Your task to perform on an android device: find snoozed emails in the gmail app Image 0: 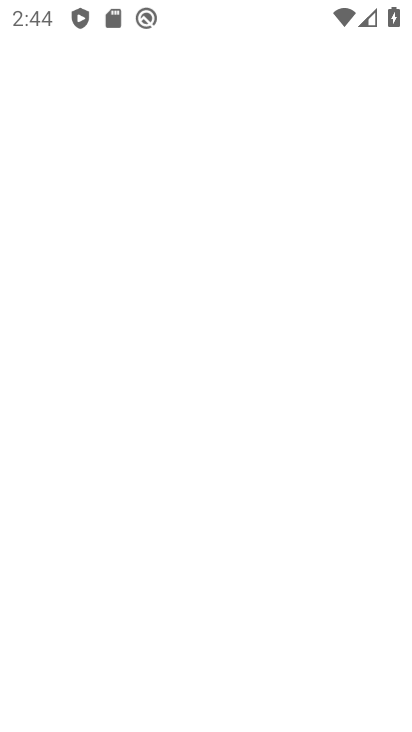
Step 0: press back button
Your task to perform on an android device: find snoozed emails in the gmail app Image 1: 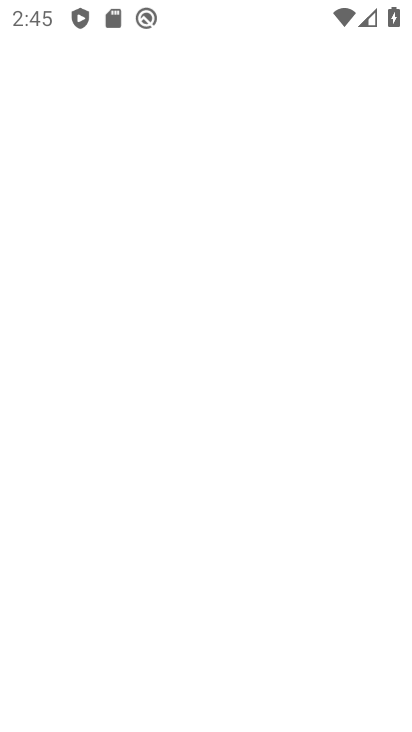
Step 1: press home button
Your task to perform on an android device: find snoozed emails in the gmail app Image 2: 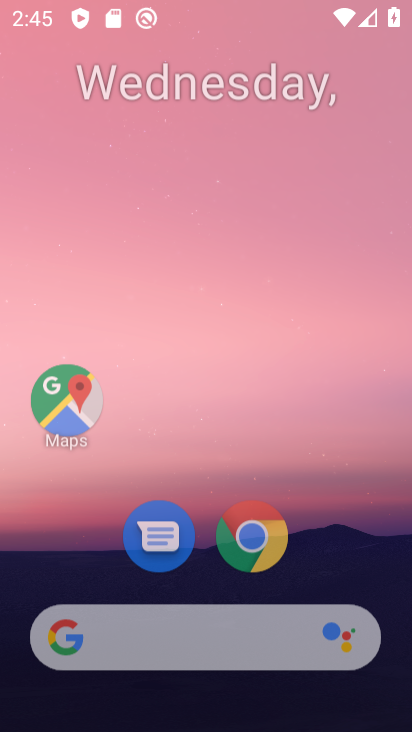
Step 2: press back button
Your task to perform on an android device: find snoozed emails in the gmail app Image 3: 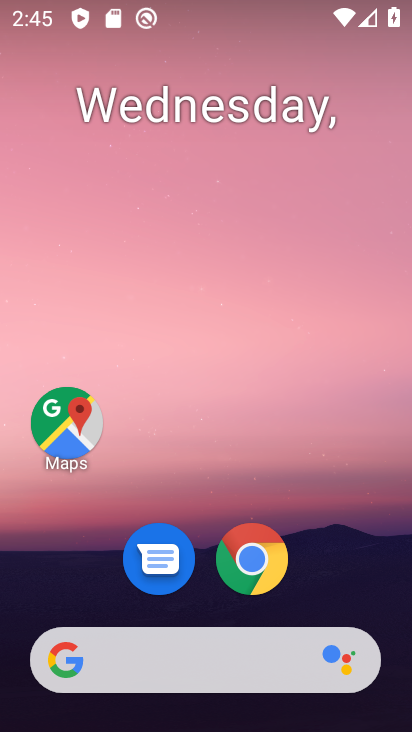
Step 3: drag from (61, 507) to (168, 57)
Your task to perform on an android device: find snoozed emails in the gmail app Image 4: 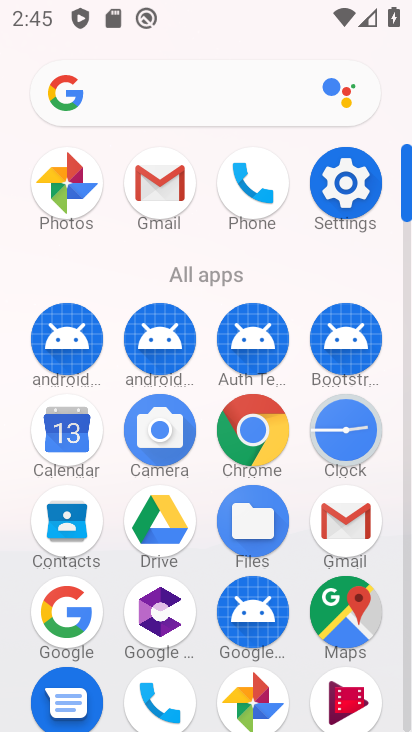
Step 4: click (164, 180)
Your task to perform on an android device: find snoozed emails in the gmail app Image 5: 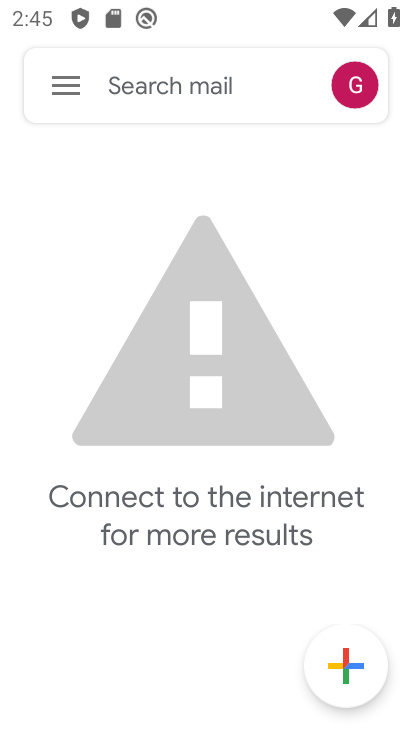
Step 5: drag from (167, 169) to (163, 731)
Your task to perform on an android device: find snoozed emails in the gmail app Image 6: 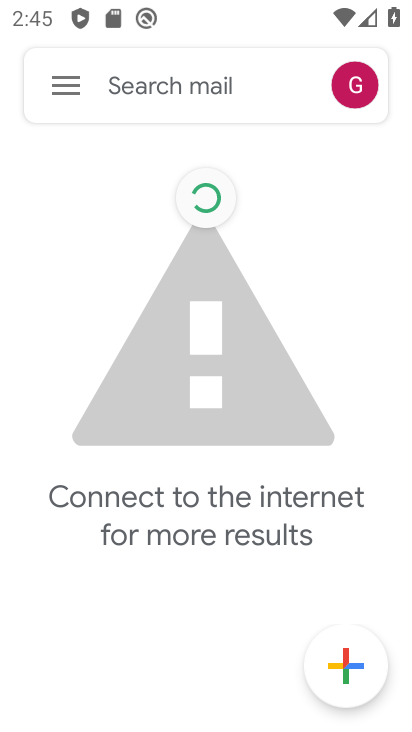
Step 6: click (60, 80)
Your task to perform on an android device: find snoozed emails in the gmail app Image 7: 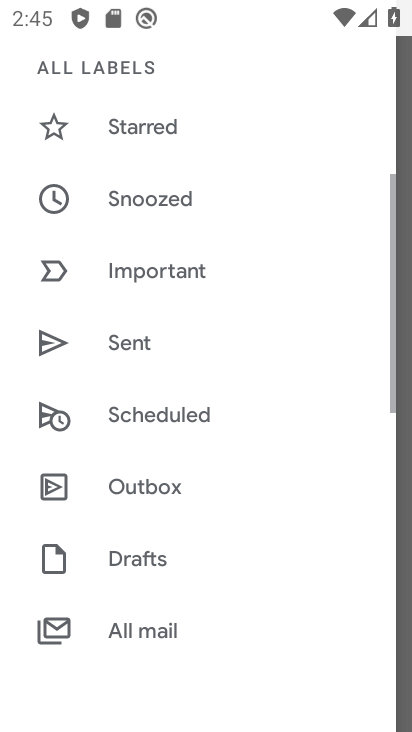
Step 7: click (151, 202)
Your task to perform on an android device: find snoozed emails in the gmail app Image 8: 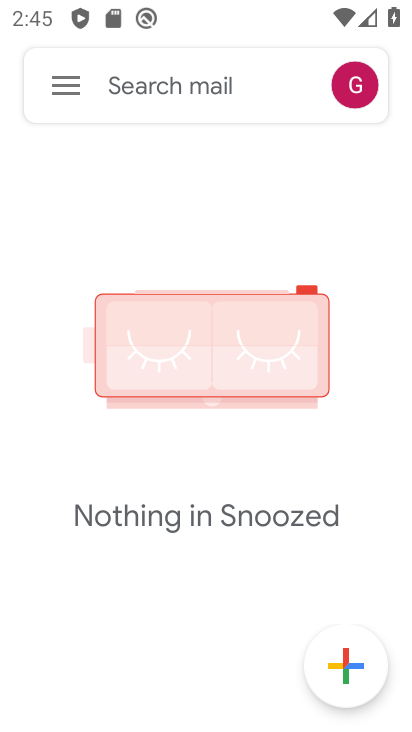
Step 8: task complete